Your task to perform on an android device: open chrome privacy settings Image 0: 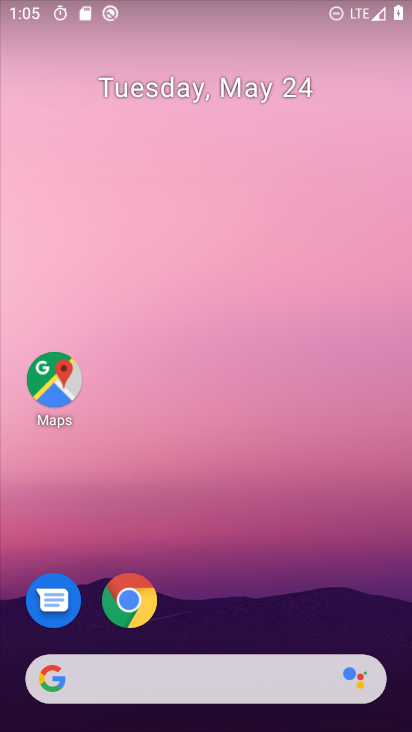
Step 0: click (126, 599)
Your task to perform on an android device: open chrome privacy settings Image 1: 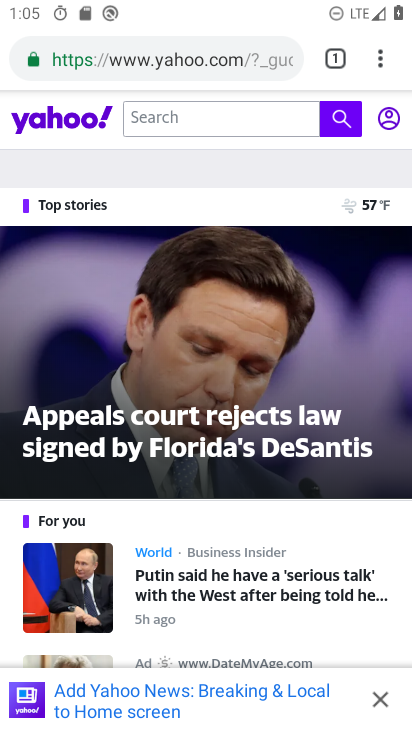
Step 1: click (389, 52)
Your task to perform on an android device: open chrome privacy settings Image 2: 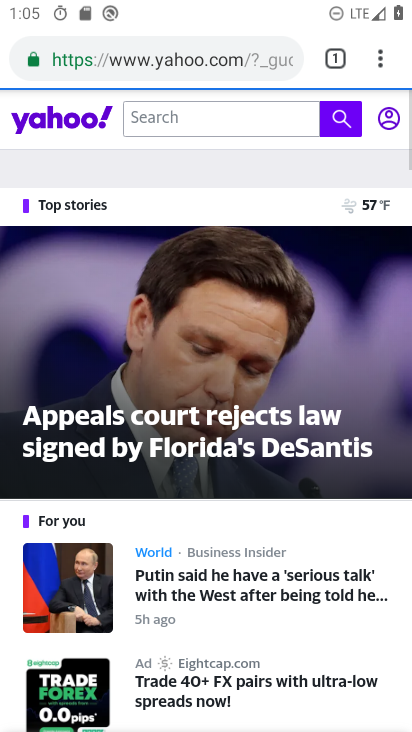
Step 2: drag from (379, 62) to (201, 633)
Your task to perform on an android device: open chrome privacy settings Image 3: 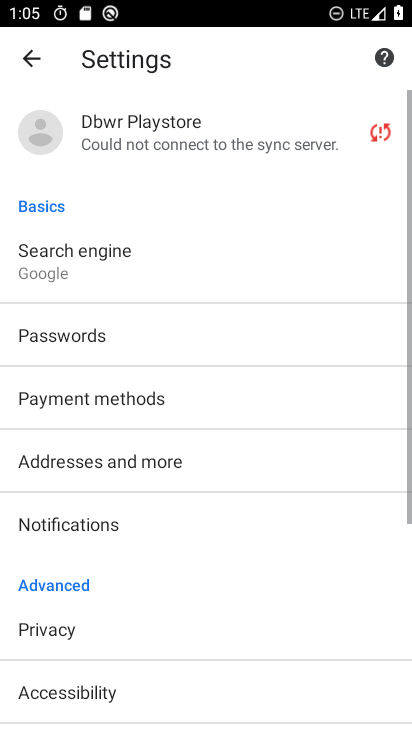
Step 3: drag from (207, 626) to (213, 179)
Your task to perform on an android device: open chrome privacy settings Image 4: 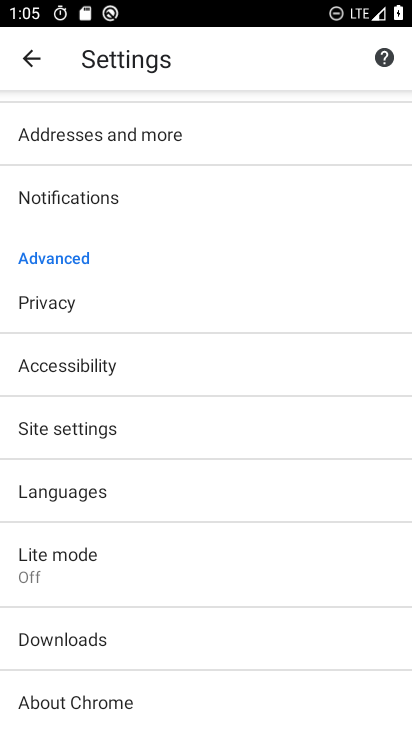
Step 4: drag from (139, 651) to (181, 432)
Your task to perform on an android device: open chrome privacy settings Image 5: 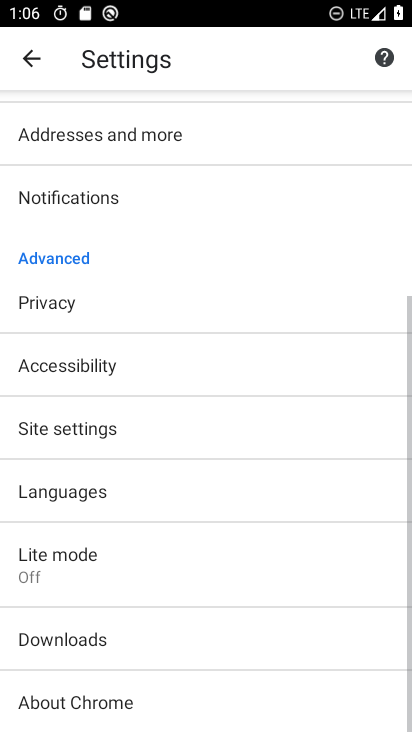
Step 5: click (133, 401)
Your task to perform on an android device: open chrome privacy settings Image 6: 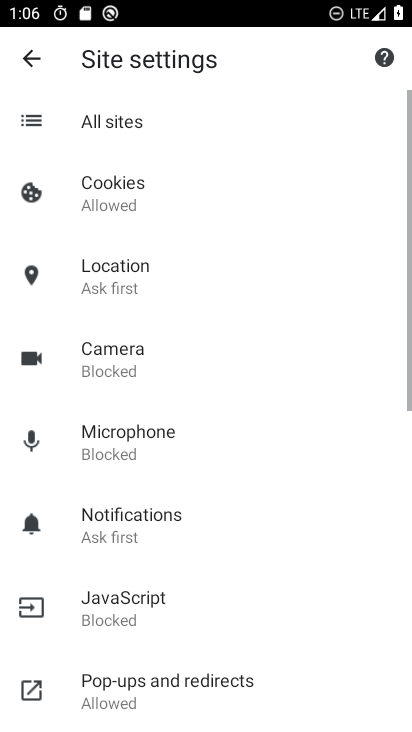
Step 6: drag from (193, 619) to (298, 178)
Your task to perform on an android device: open chrome privacy settings Image 7: 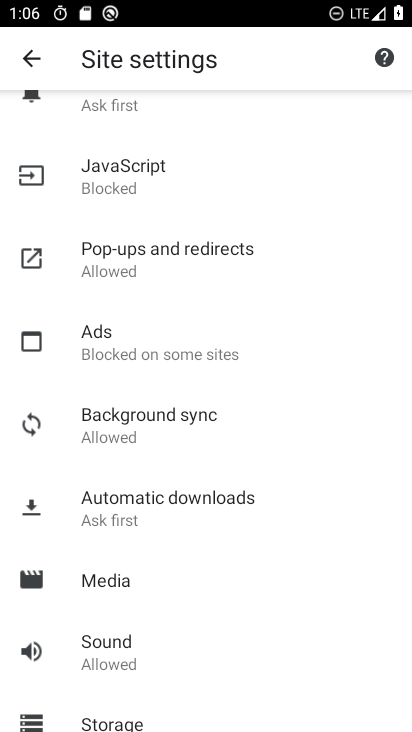
Step 7: click (31, 62)
Your task to perform on an android device: open chrome privacy settings Image 8: 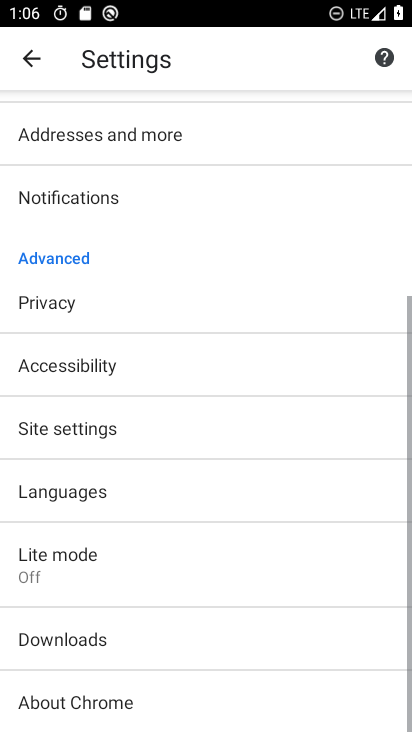
Step 8: click (239, 297)
Your task to perform on an android device: open chrome privacy settings Image 9: 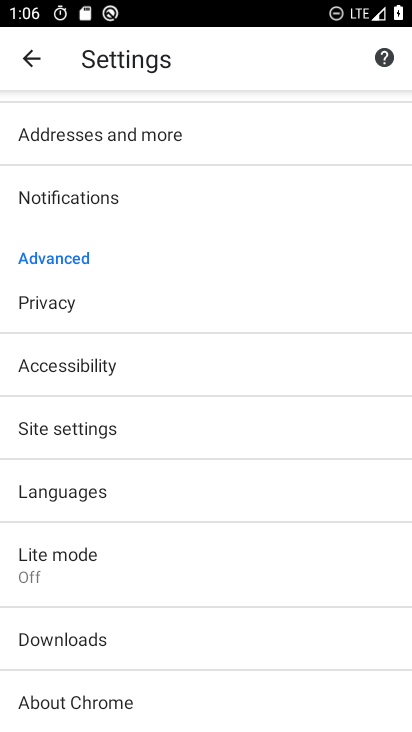
Step 9: click (64, 295)
Your task to perform on an android device: open chrome privacy settings Image 10: 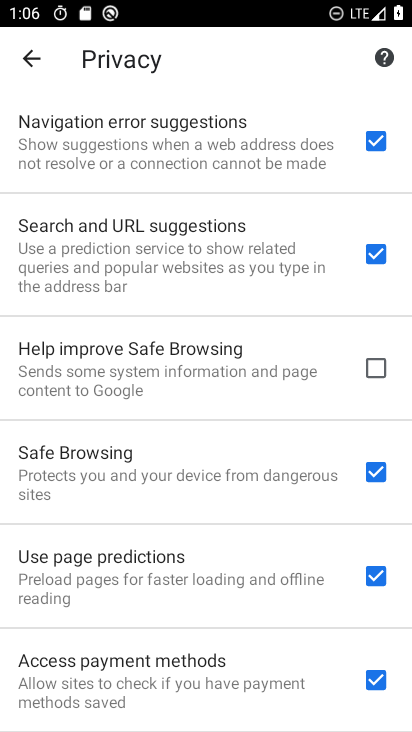
Step 10: task complete